Your task to perform on an android device: Open location settings Image 0: 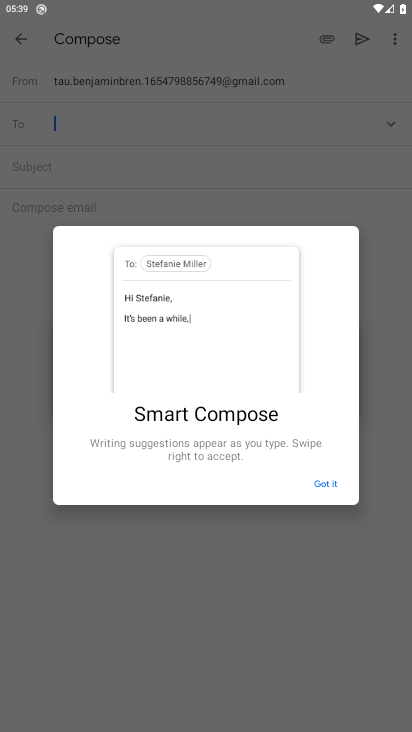
Step 0: press home button
Your task to perform on an android device: Open location settings Image 1: 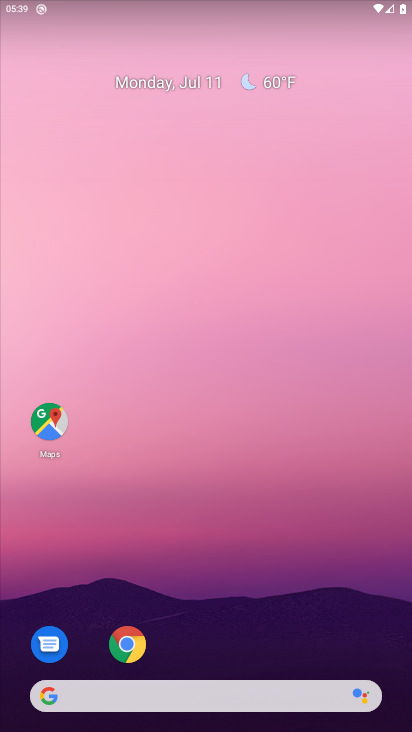
Step 1: drag from (186, 677) to (233, 256)
Your task to perform on an android device: Open location settings Image 2: 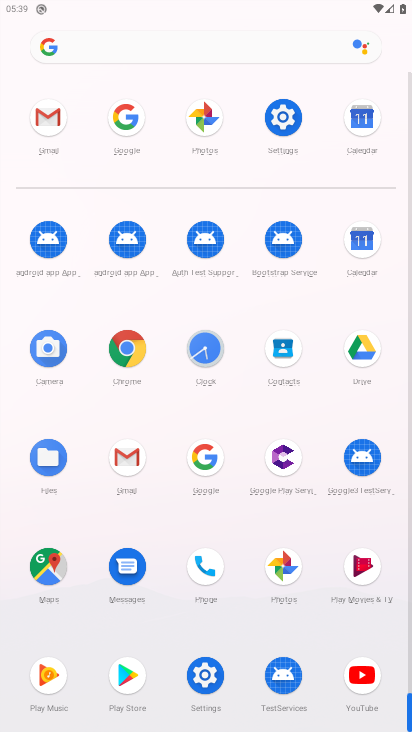
Step 2: click (202, 677)
Your task to perform on an android device: Open location settings Image 3: 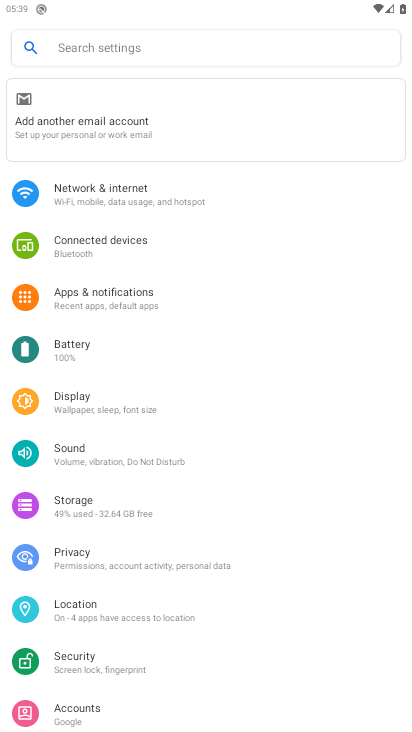
Step 3: click (86, 610)
Your task to perform on an android device: Open location settings Image 4: 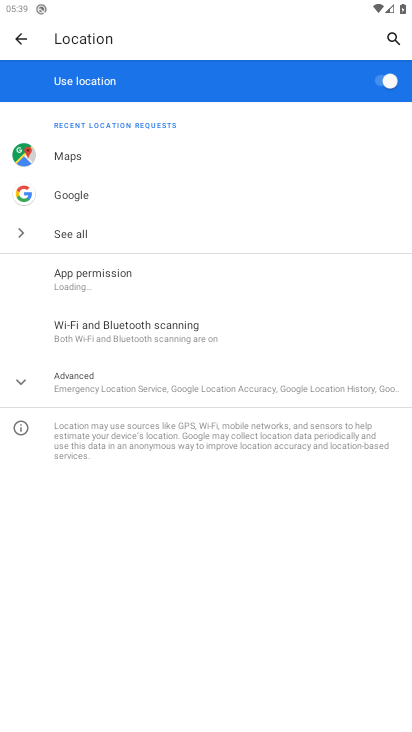
Step 4: click (107, 383)
Your task to perform on an android device: Open location settings Image 5: 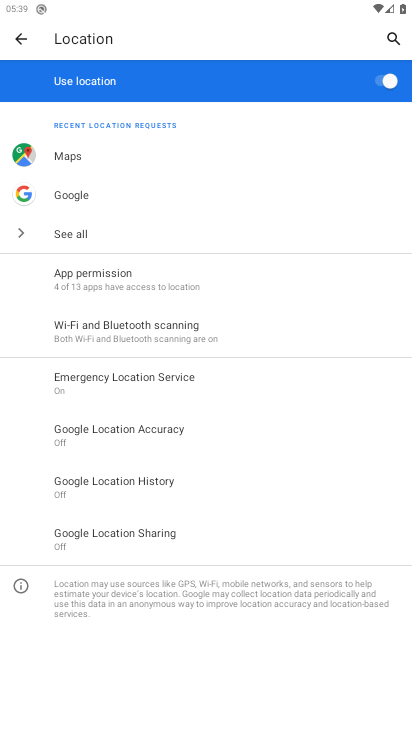
Step 5: task complete